Your task to perform on an android device: turn on notifications settings in the gmail app Image 0: 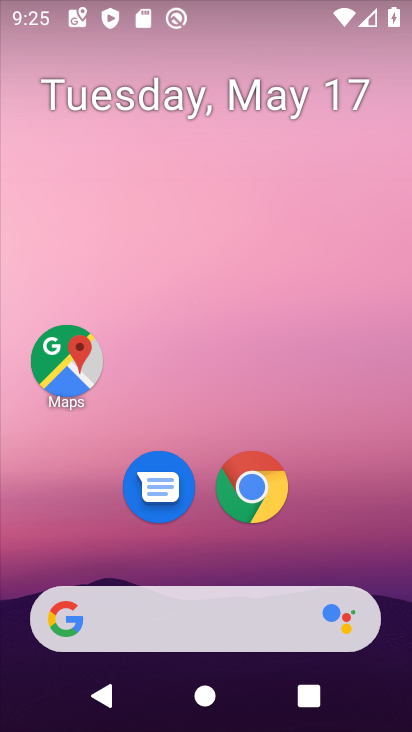
Step 0: press home button
Your task to perform on an android device: turn on notifications settings in the gmail app Image 1: 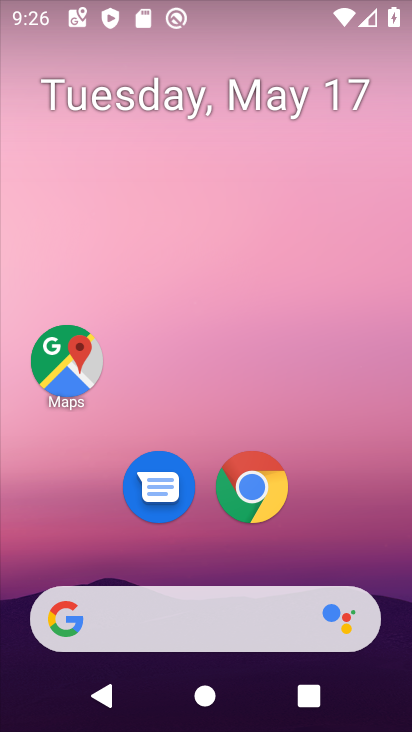
Step 1: drag from (280, 632) to (209, 232)
Your task to perform on an android device: turn on notifications settings in the gmail app Image 2: 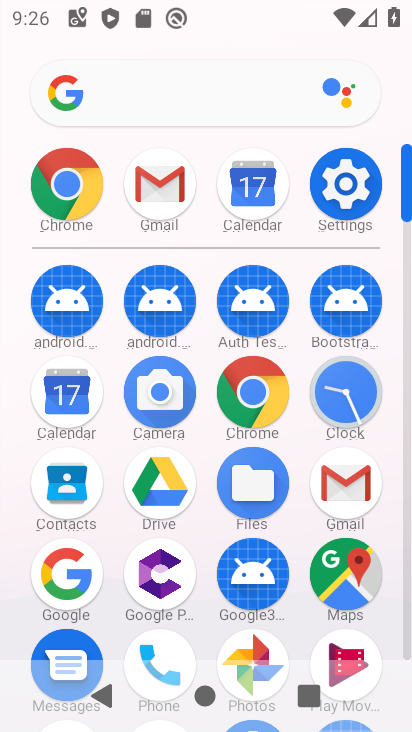
Step 2: click (334, 514)
Your task to perform on an android device: turn on notifications settings in the gmail app Image 3: 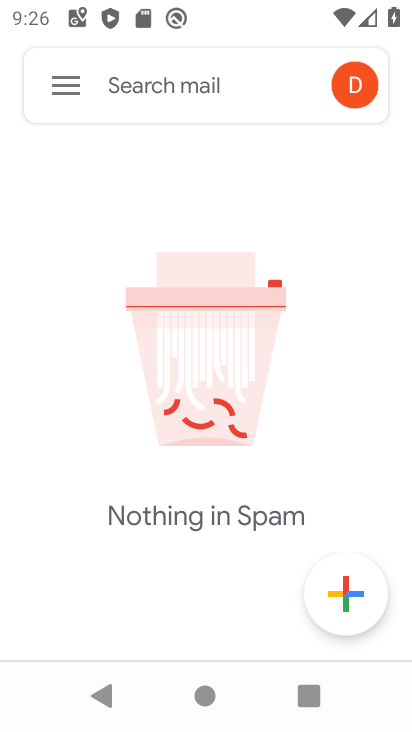
Step 3: click (47, 104)
Your task to perform on an android device: turn on notifications settings in the gmail app Image 4: 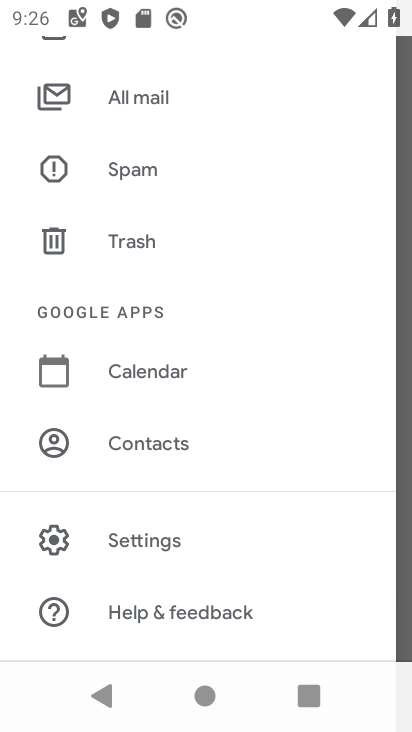
Step 4: click (187, 527)
Your task to perform on an android device: turn on notifications settings in the gmail app Image 5: 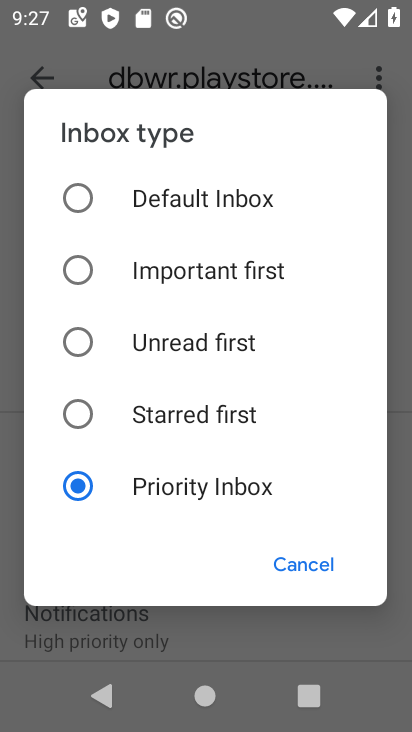
Step 5: click (310, 565)
Your task to perform on an android device: turn on notifications settings in the gmail app Image 6: 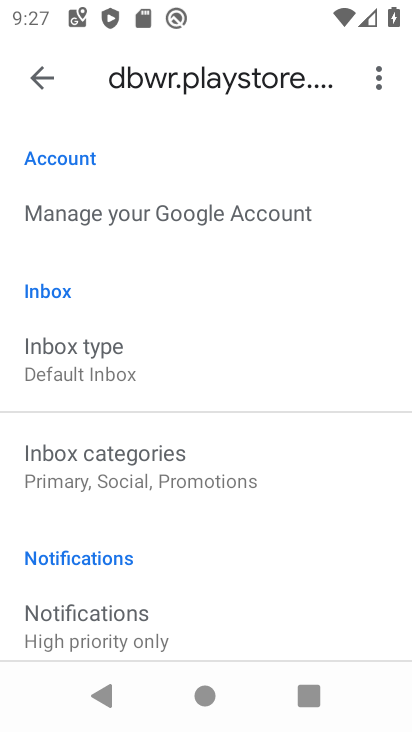
Step 6: click (140, 607)
Your task to perform on an android device: turn on notifications settings in the gmail app Image 7: 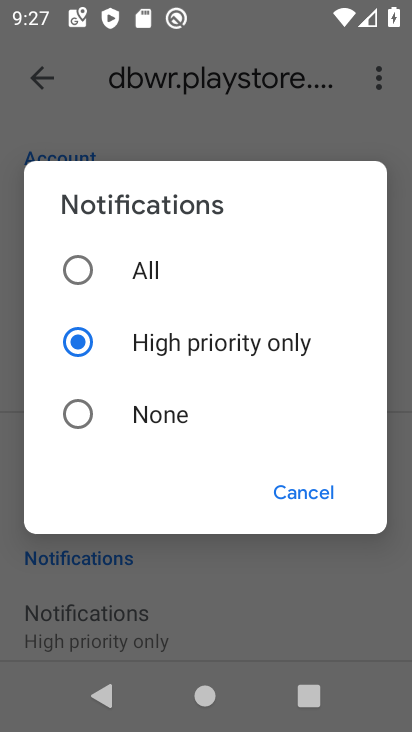
Step 7: click (94, 268)
Your task to perform on an android device: turn on notifications settings in the gmail app Image 8: 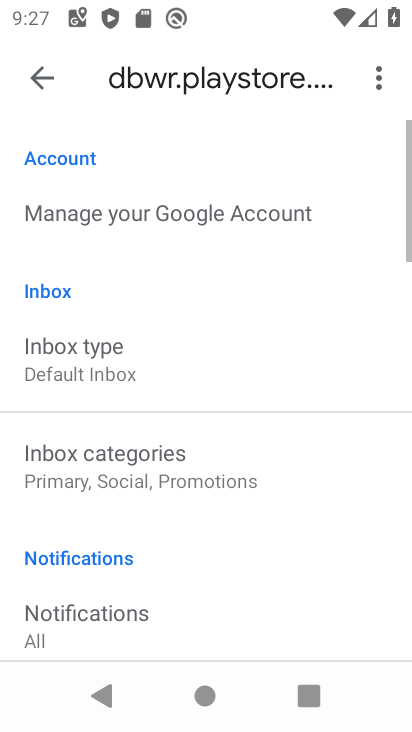
Step 8: task complete